Your task to perform on an android device: delete a single message in the gmail app Image 0: 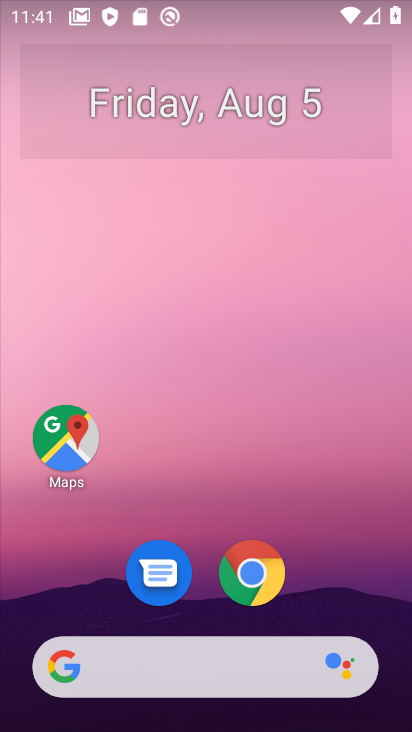
Step 0: drag from (291, 456) to (267, 54)
Your task to perform on an android device: delete a single message in the gmail app Image 1: 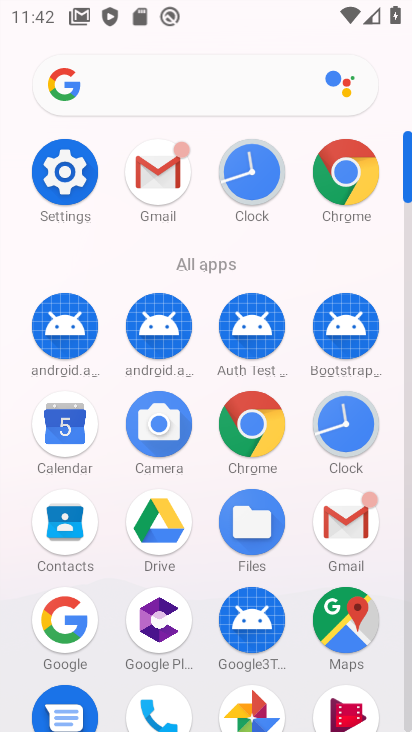
Step 1: click (344, 500)
Your task to perform on an android device: delete a single message in the gmail app Image 2: 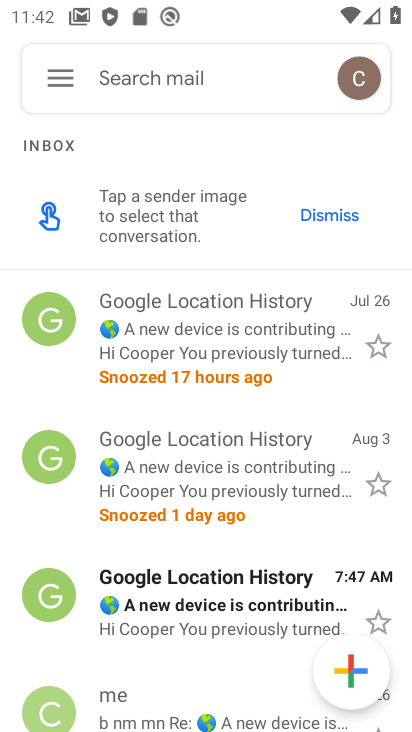
Step 2: task complete